Your task to perform on an android device: toggle sleep mode Image 0: 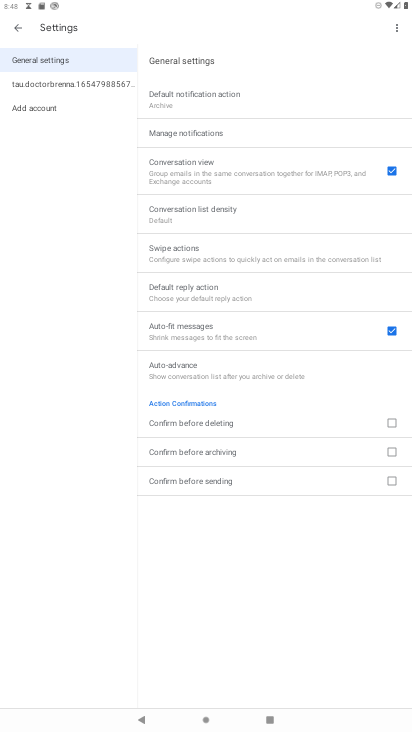
Step 0: press back button
Your task to perform on an android device: toggle sleep mode Image 1: 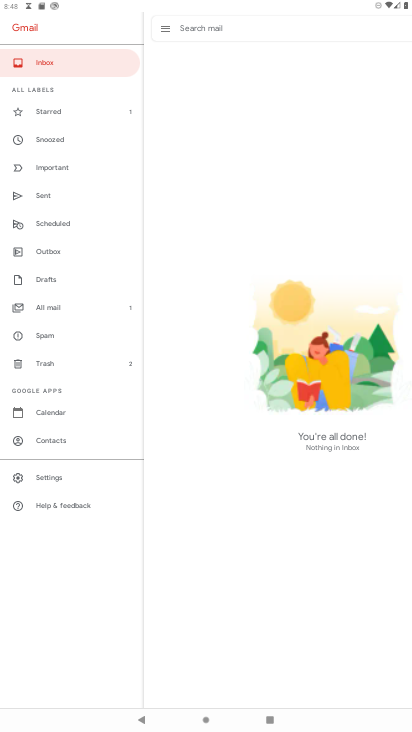
Step 1: press home button
Your task to perform on an android device: toggle sleep mode Image 2: 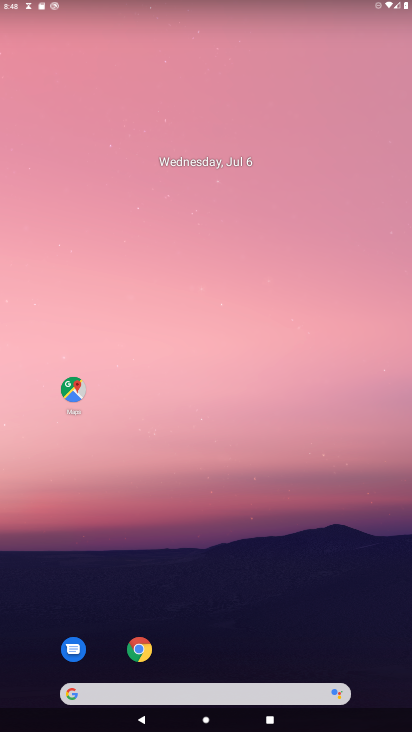
Step 2: drag from (377, 680) to (172, 185)
Your task to perform on an android device: toggle sleep mode Image 3: 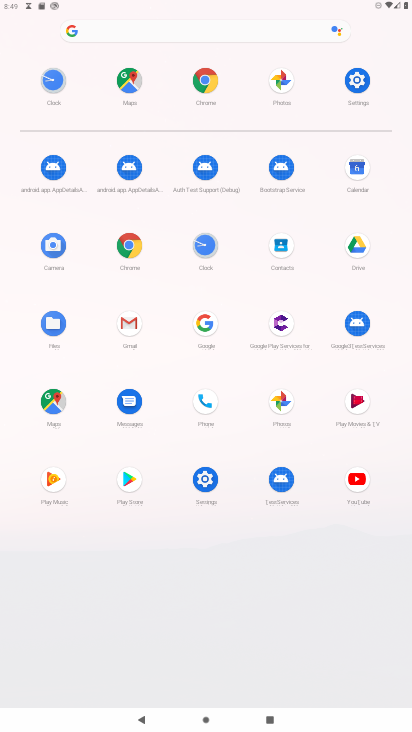
Step 3: click (353, 85)
Your task to perform on an android device: toggle sleep mode Image 4: 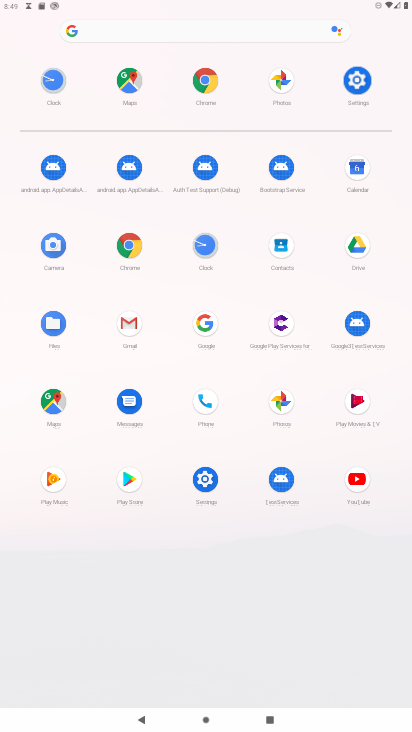
Step 4: click (357, 83)
Your task to perform on an android device: toggle sleep mode Image 5: 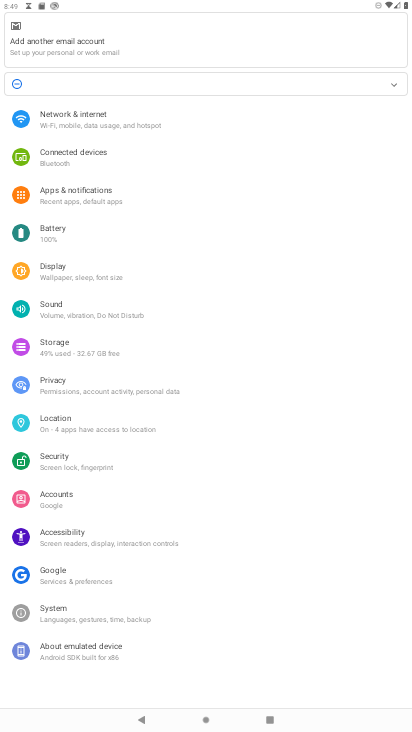
Step 5: click (67, 315)
Your task to perform on an android device: toggle sleep mode Image 6: 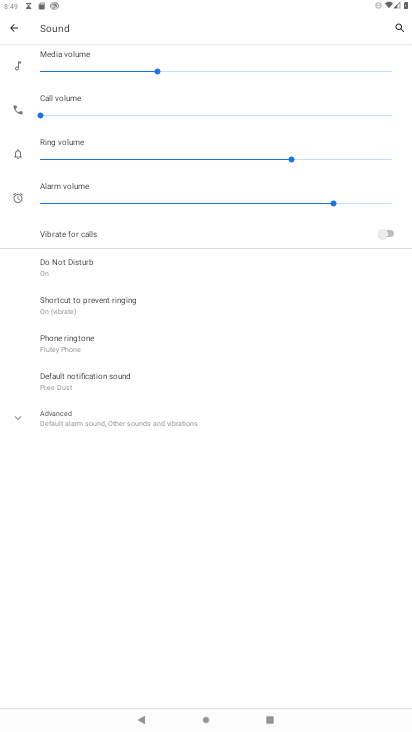
Step 6: click (18, 29)
Your task to perform on an android device: toggle sleep mode Image 7: 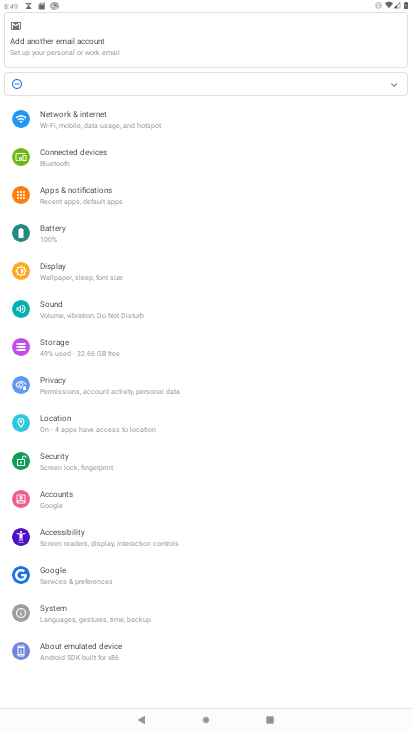
Step 7: click (62, 613)
Your task to perform on an android device: toggle sleep mode Image 8: 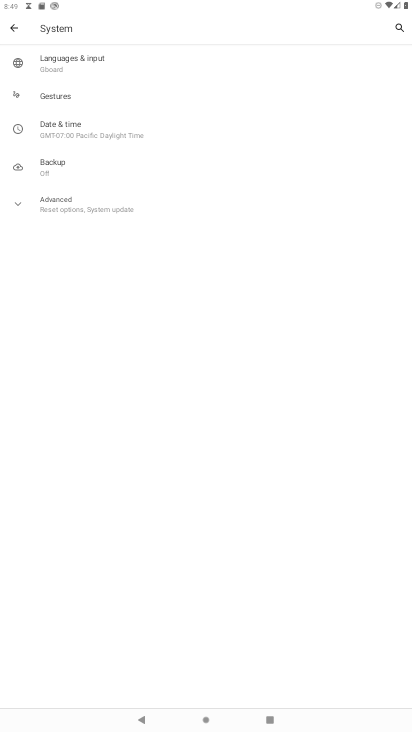
Step 8: click (17, 21)
Your task to perform on an android device: toggle sleep mode Image 9: 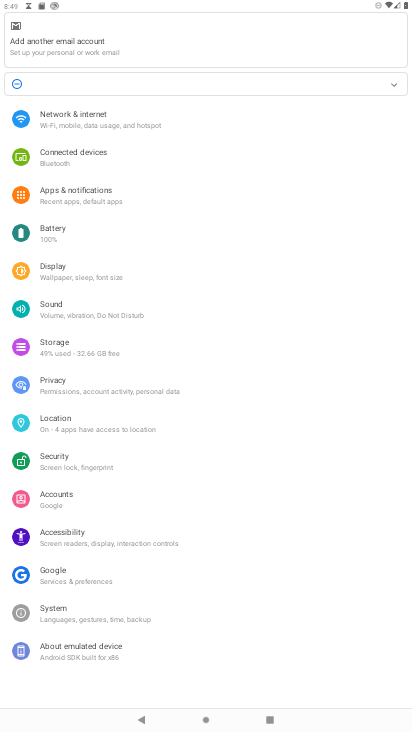
Step 9: click (61, 280)
Your task to perform on an android device: toggle sleep mode Image 10: 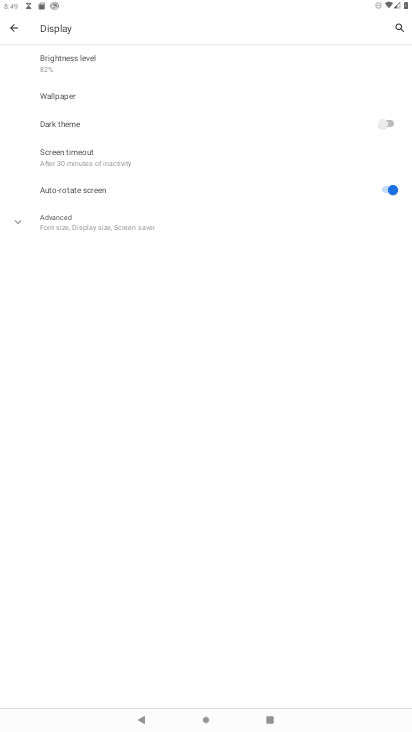
Step 10: click (74, 158)
Your task to perform on an android device: toggle sleep mode Image 11: 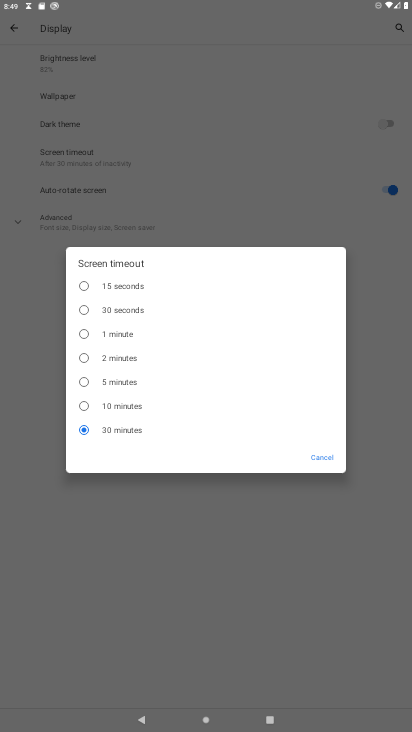
Step 11: click (84, 382)
Your task to perform on an android device: toggle sleep mode Image 12: 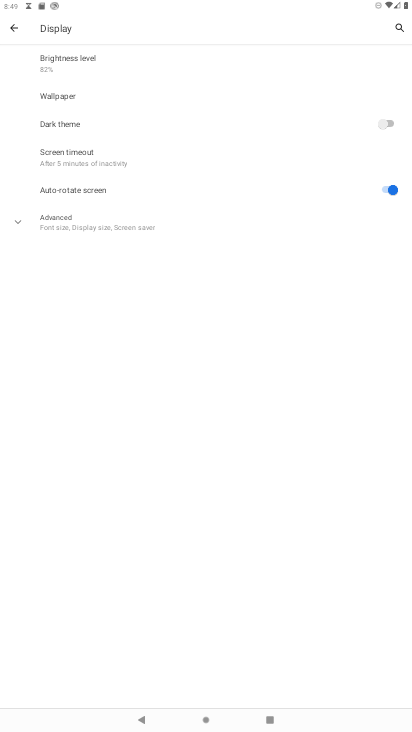
Step 12: task complete